Your task to perform on an android device: Open Youtube and go to the subscriptions tab Image 0: 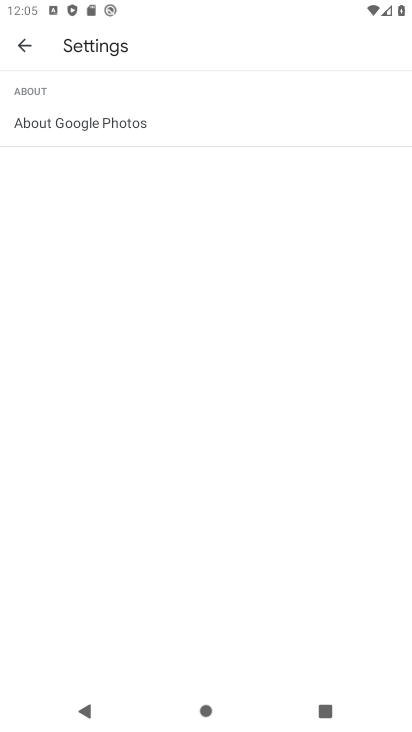
Step 0: press home button
Your task to perform on an android device: Open Youtube and go to the subscriptions tab Image 1: 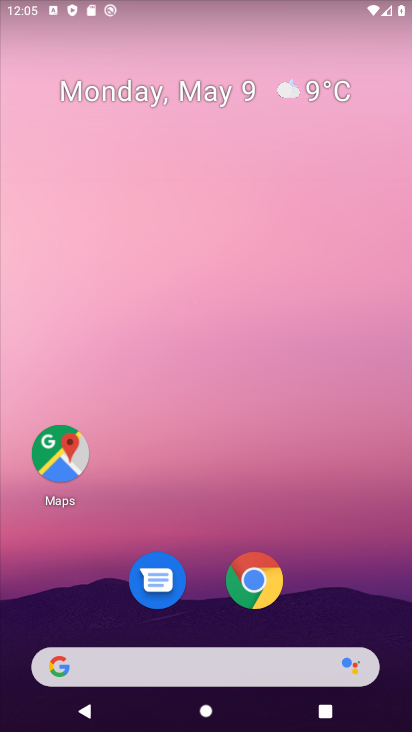
Step 1: drag from (328, 599) to (283, 135)
Your task to perform on an android device: Open Youtube and go to the subscriptions tab Image 2: 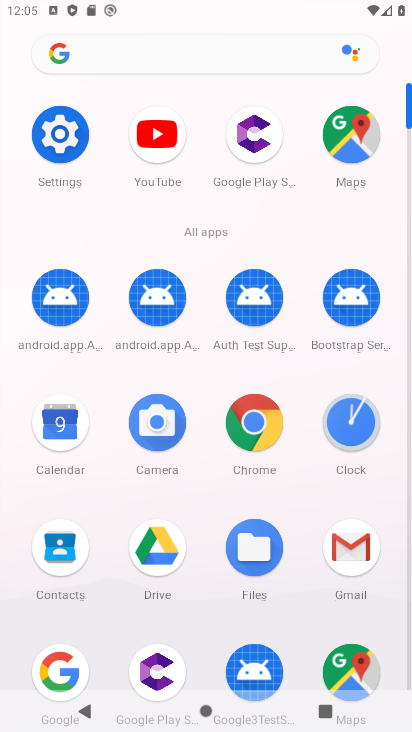
Step 2: drag from (199, 632) to (247, 281)
Your task to perform on an android device: Open Youtube and go to the subscriptions tab Image 3: 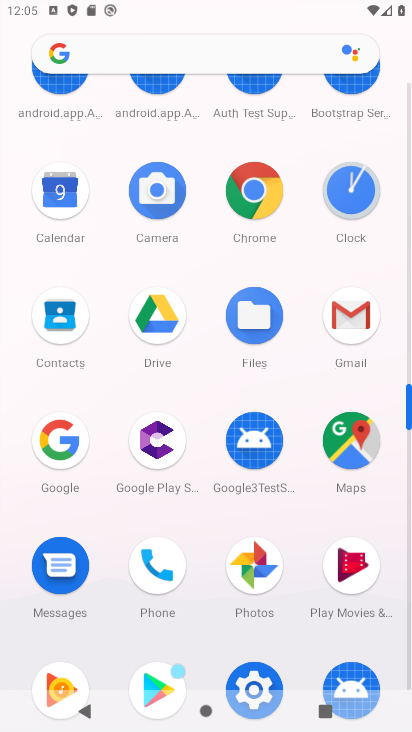
Step 3: drag from (228, 407) to (199, 711)
Your task to perform on an android device: Open Youtube and go to the subscriptions tab Image 4: 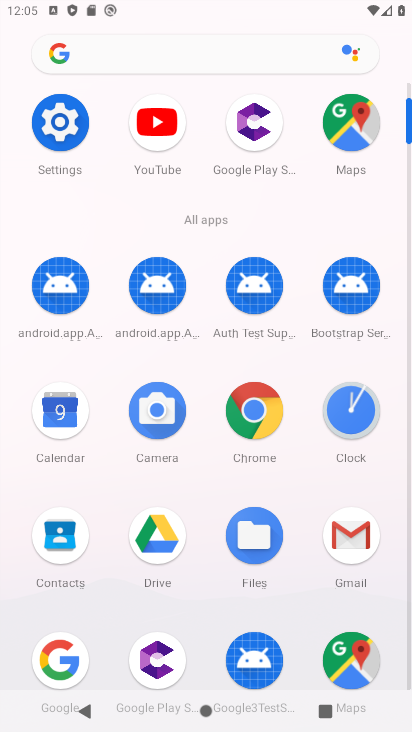
Step 4: click (159, 134)
Your task to perform on an android device: Open Youtube and go to the subscriptions tab Image 5: 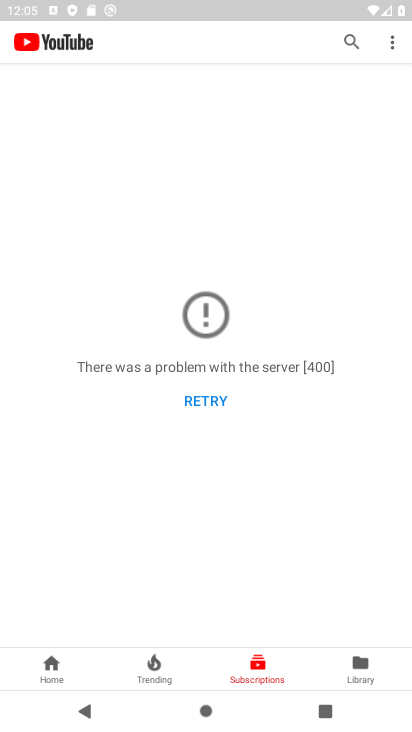
Step 5: task complete